Your task to perform on an android device: open device folders in google photos Image 0: 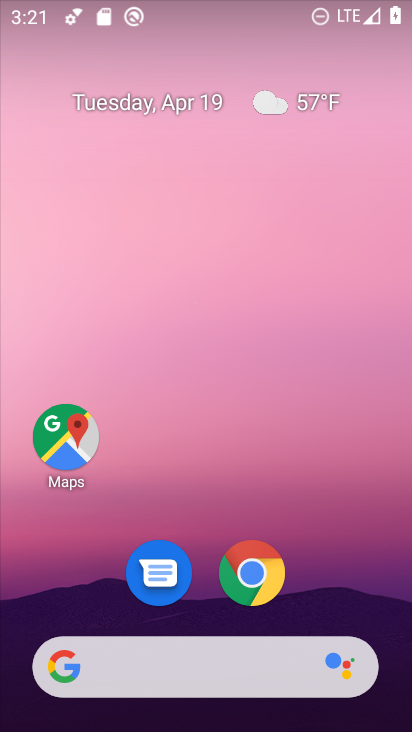
Step 0: drag from (367, 455) to (395, 5)
Your task to perform on an android device: open device folders in google photos Image 1: 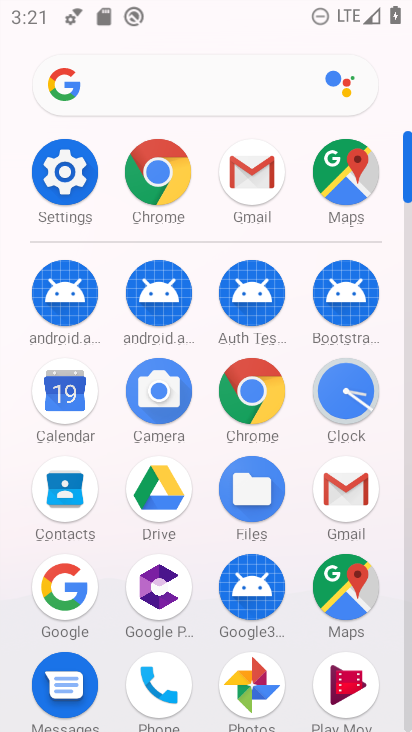
Step 1: drag from (398, 474) to (410, 268)
Your task to perform on an android device: open device folders in google photos Image 2: 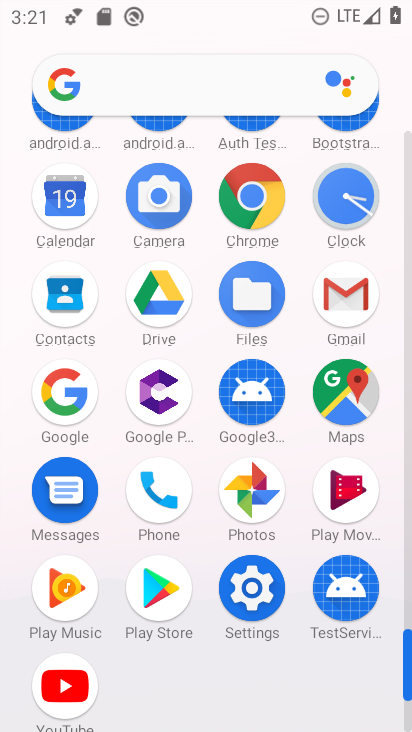
Step 2: click (257, 493)
Your task to perform on an android device: open device folders in google photos Image 3: 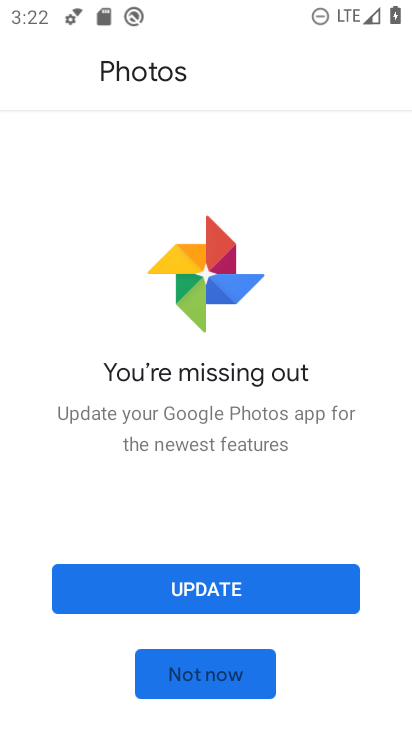
Step 3: click (211, 680)
Your task to perform on an android device: open device folders in google photos Image 4: 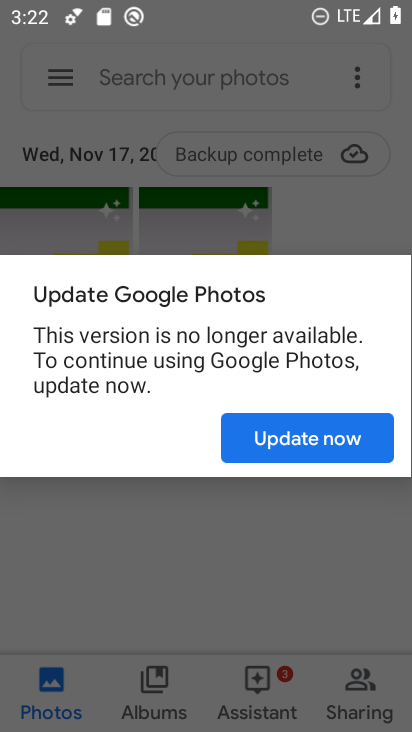
Step 4: click (285, 444)
Your task to perform on an android device: open device folders in google photos Image 5: 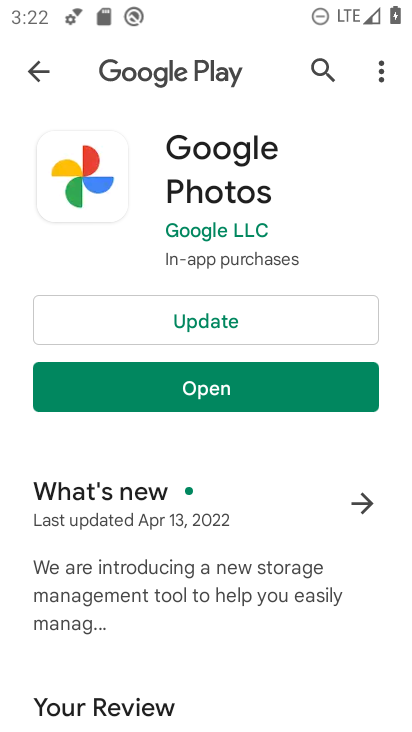
Step 5: click (194, 387)
Your task to perform on an android device: open device folders in google photos Image 6: 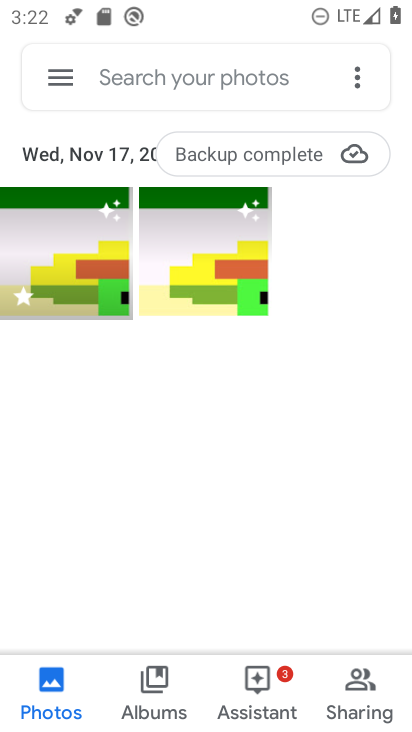
Step 6: click (54, 84)
Your task to perform on an android device: open device folders in google photos Image 7: 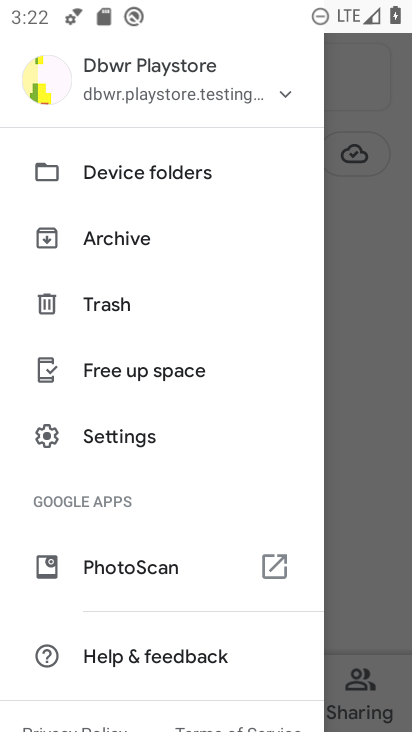
Step 7: click (97, 173)
Your task to perform on an android device: open device folders in google photos Image 8: 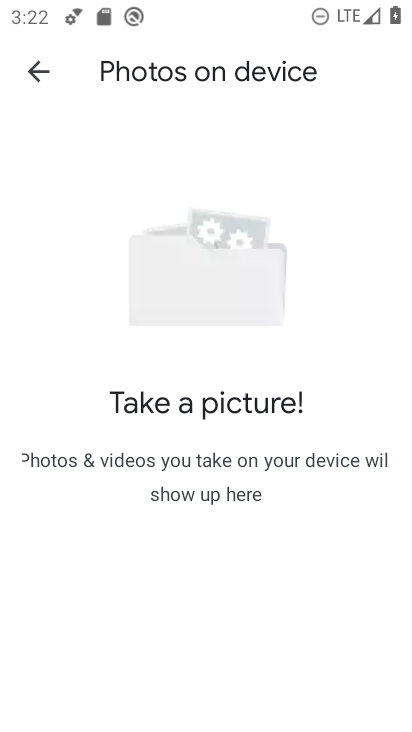
Step 8: task complete